Your task to perform on an android device: open a new tab in the chrome app Image 0: 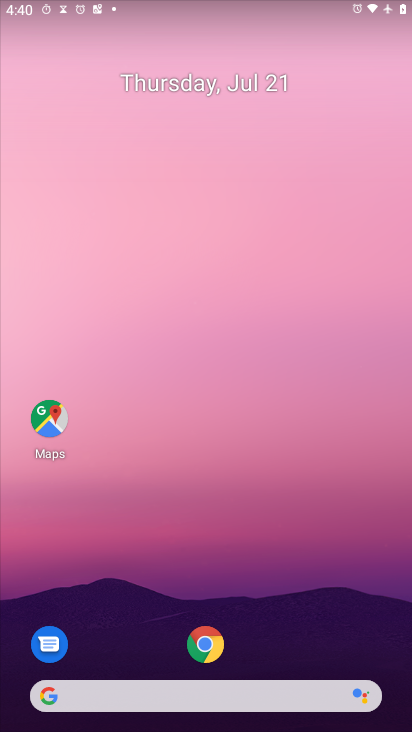
Step 0: press home button
Your task to perform on an android device: open a new tab in the chrome app Image 1: 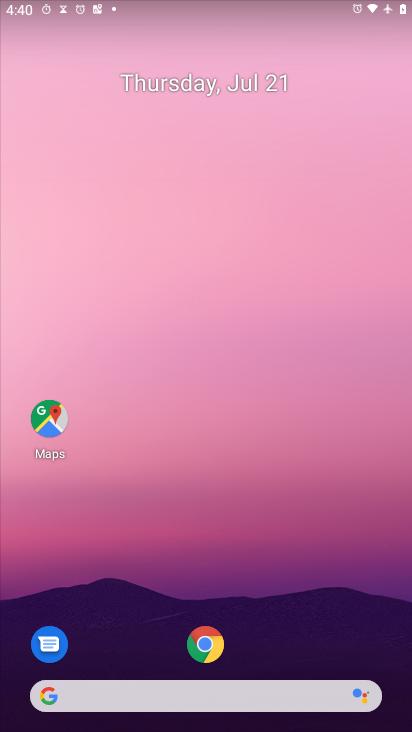
Step 1: drag from (307, 646) to (349, 88)
Your task to perform on an android device: open a new tab in the chrome app Image 2: 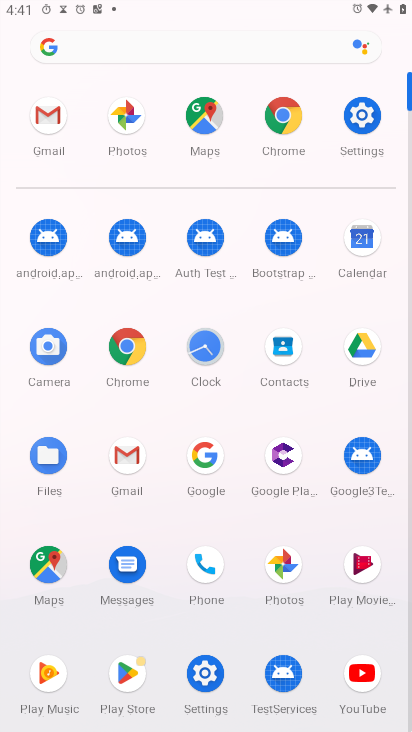
Step 2: click (284, 116)
Your task to perform on an android device: open a new tab in the chrome app Image 3: 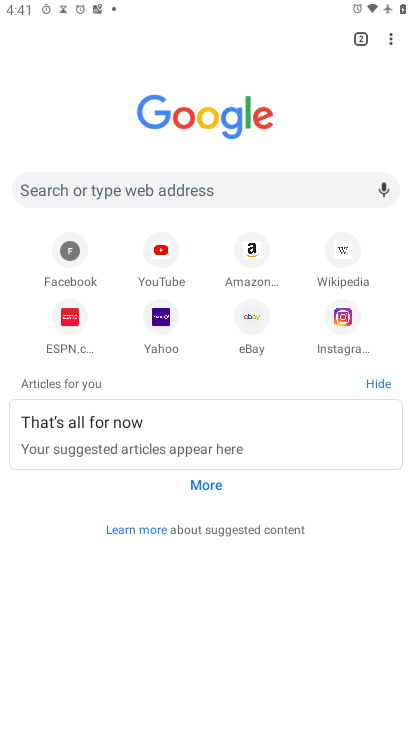
Step 3: click (359, 42)
Your task to perform on an android device: open a new tab in the chrome app Image 4: 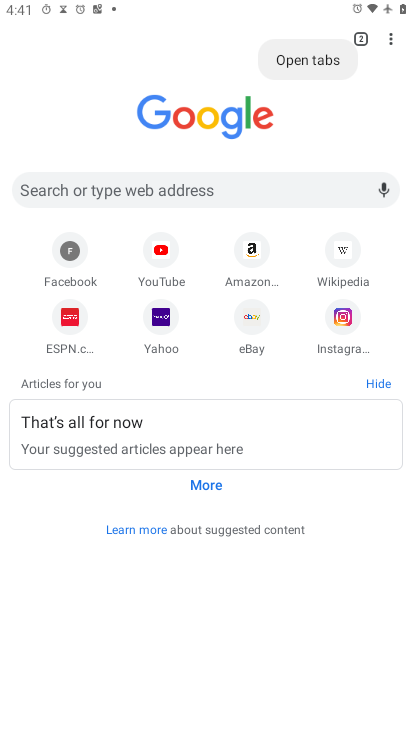
Step 4: click (359, 42)
Your task to perform on an android device: open a new tab in the chrome app Image 5: 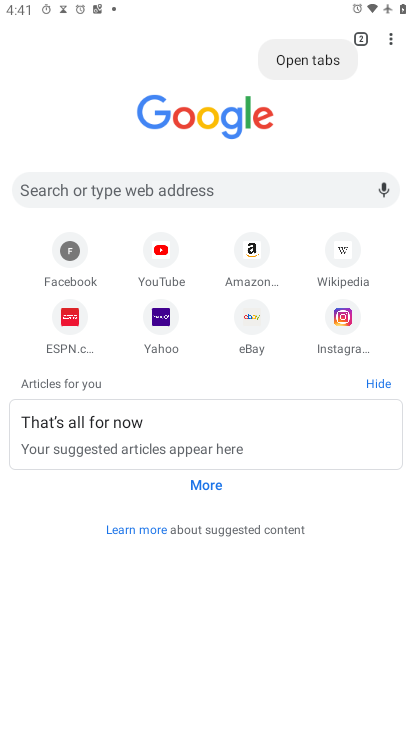
Step 5: click (299, 69)
Your task to perform on an android device: open a new tab in the chrome app Image 6: 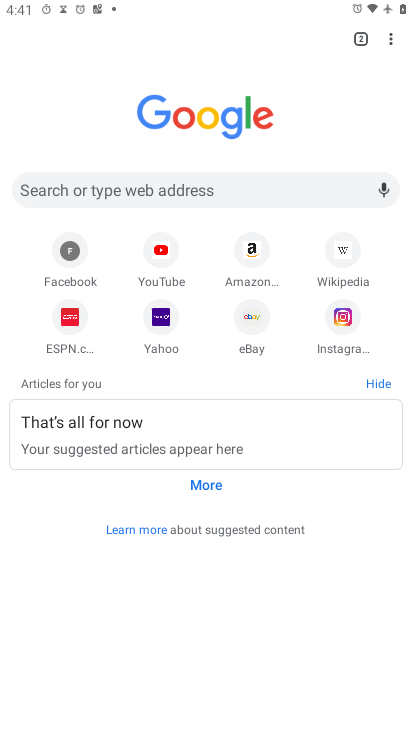
Step 6: click (360, 33)
Your task to perform on an android device: open a new tab in the chrome app Image 7: 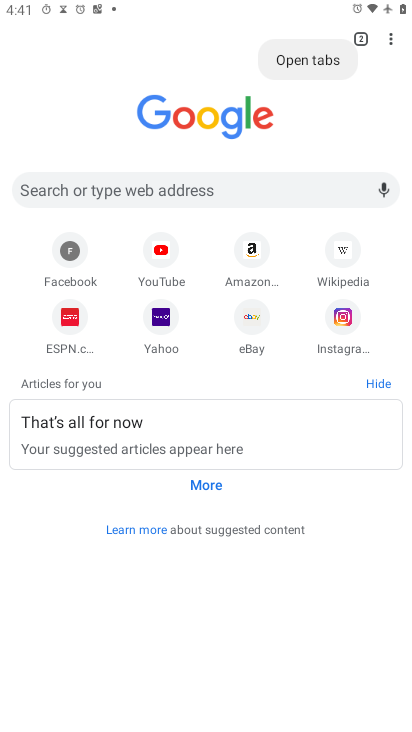
Step 7: click (355, 37)
Your task to perform on an android device: open a new tab in the chrome app Image 8: 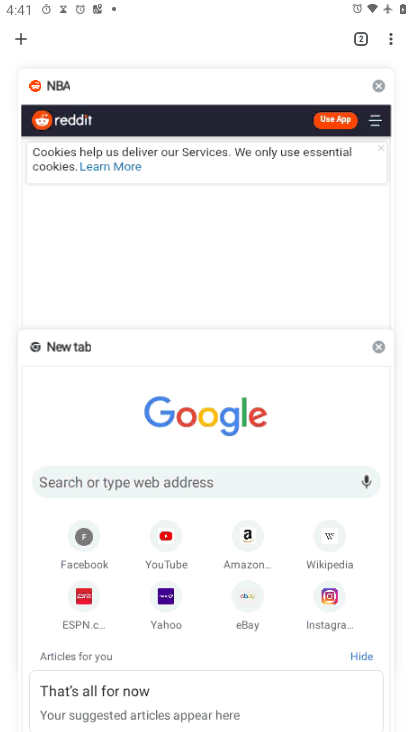
Step 8: click (20, 39)
Your task to perform on an android device: open a new tab in the chrome app Image 9: 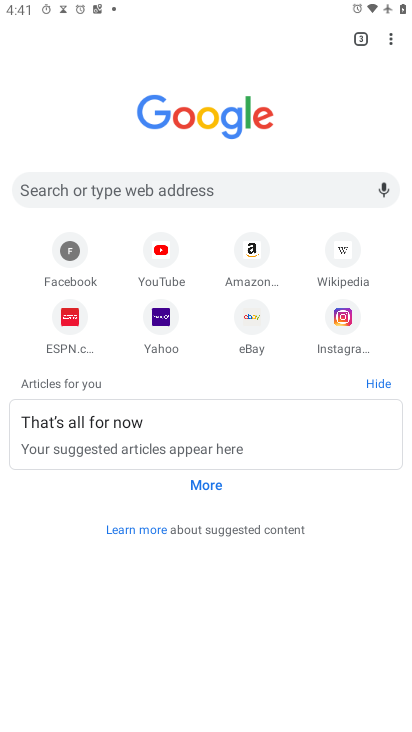
Step 9: task complete